Your task to perform on an android device: View the shopping cart on bestbuy. Image 0: 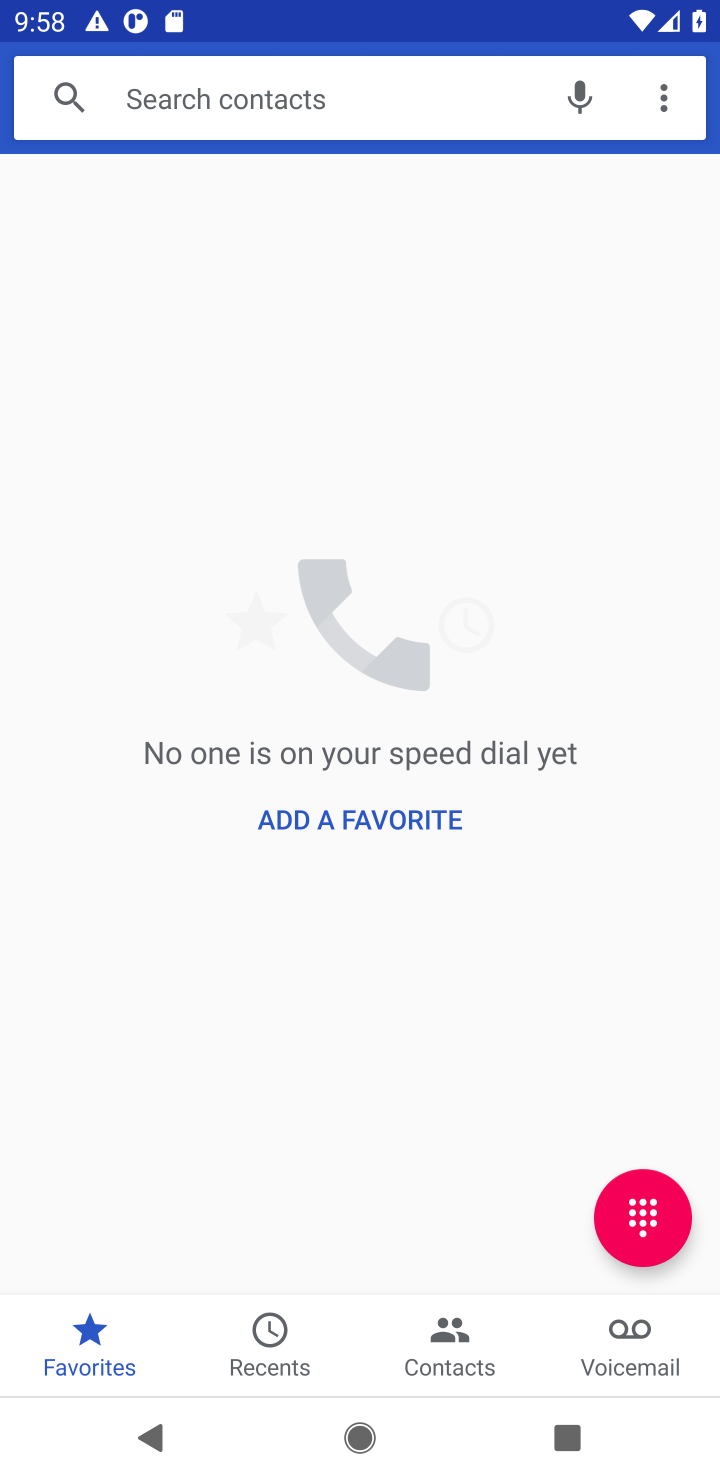
Step 0: press home button
Your task to perform on an android device: View the shopping cart on bestbuy. Image 1: 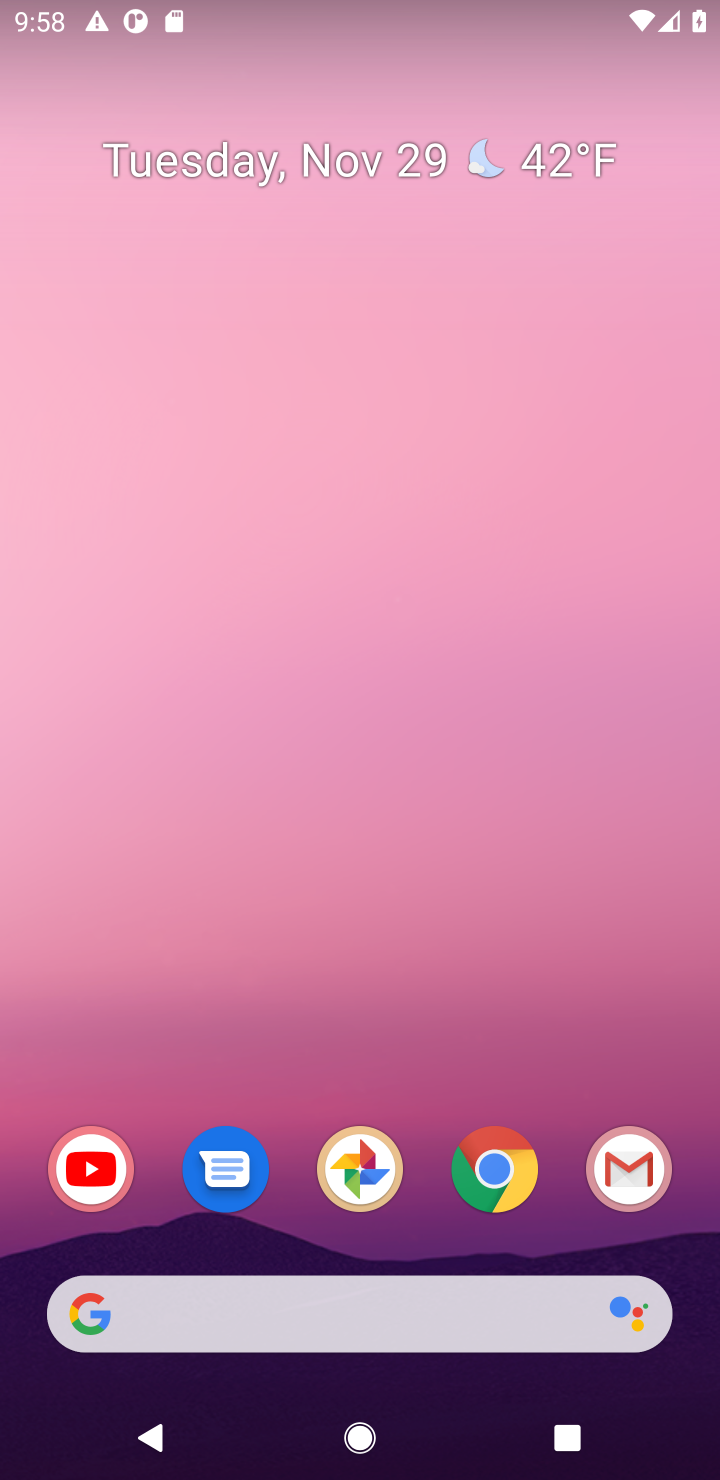
Step 1: click (299, 1295)
Your task to perform on an android device: View the shopping cart on bestbuy. Image 2: 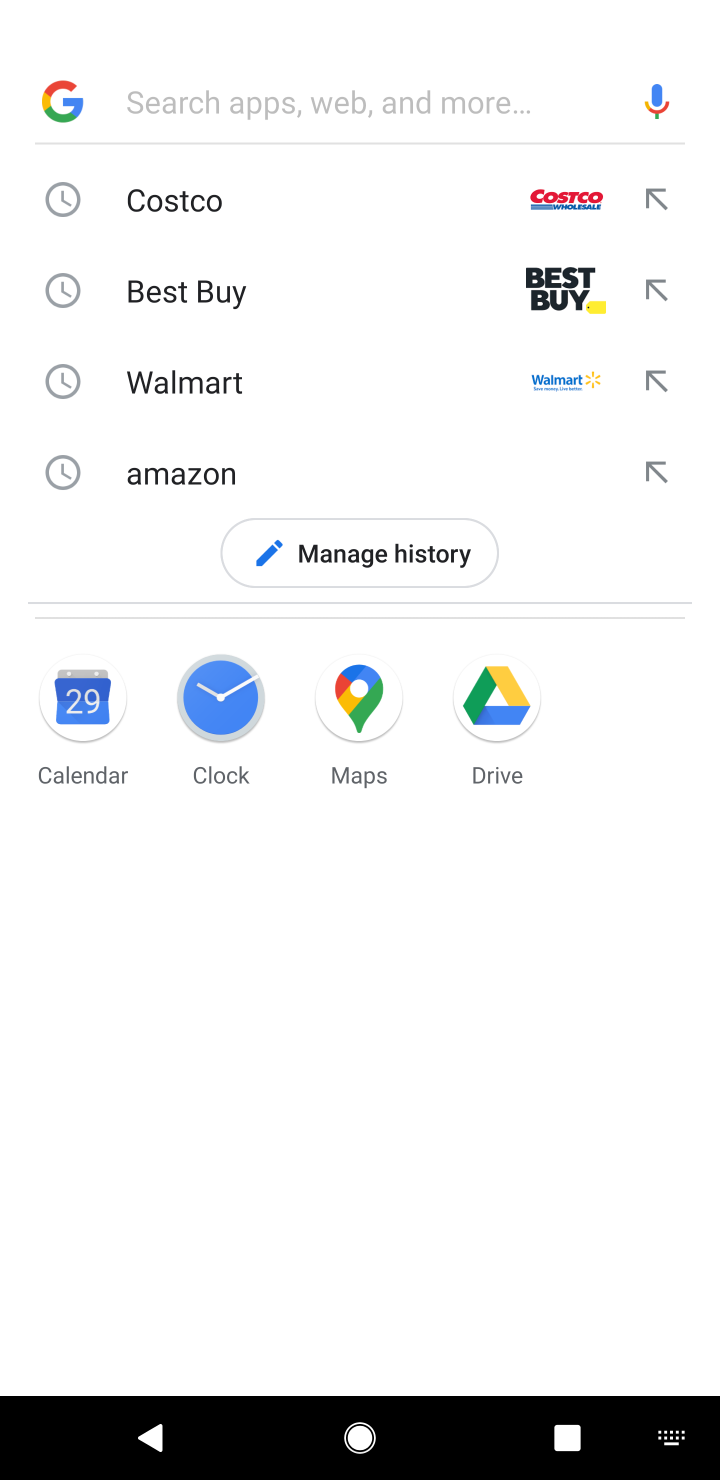
Step 2: type "bestbuy"
Your task to perform on an android device: View the shopping cart on bestbuy. Image 3: 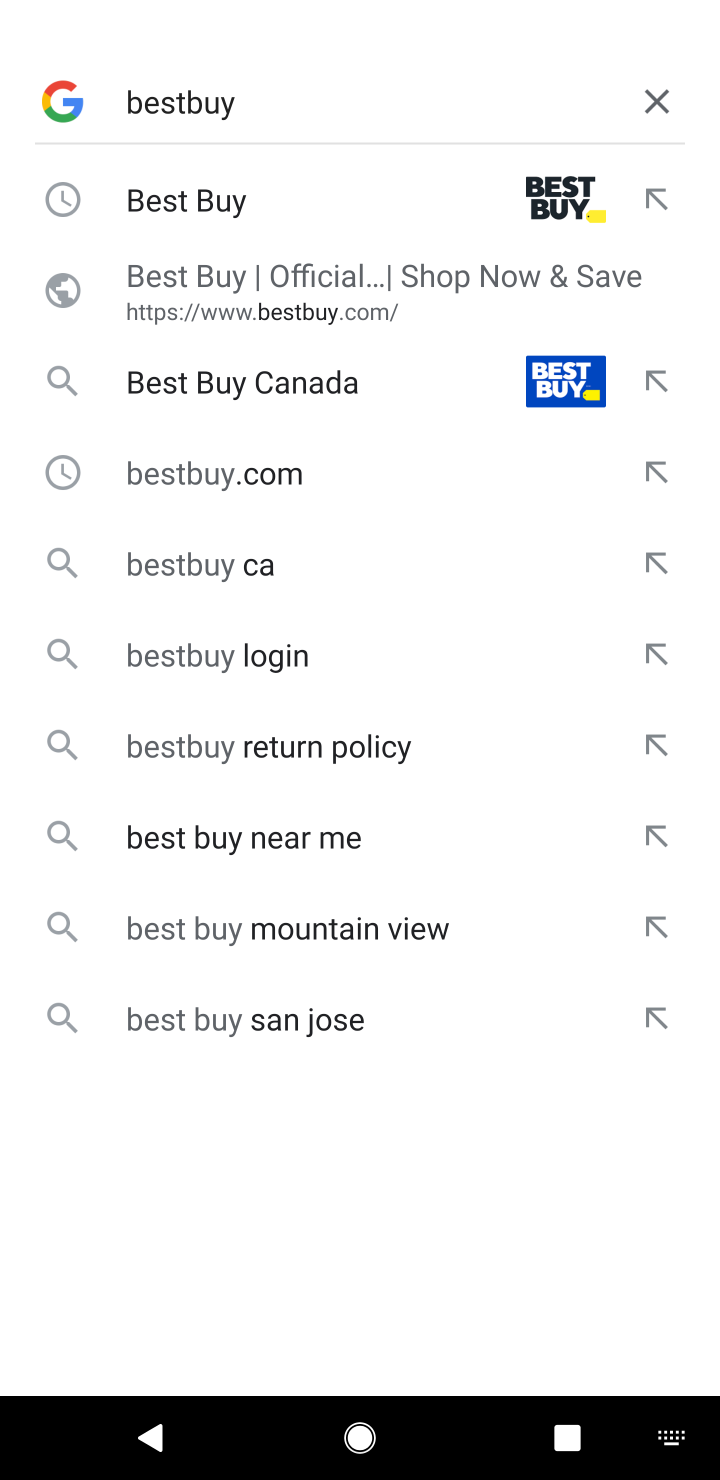
Step 3: click (216, 211)
Your task to perform on an android device: View the shopping cart on bestbuy. Image 4: 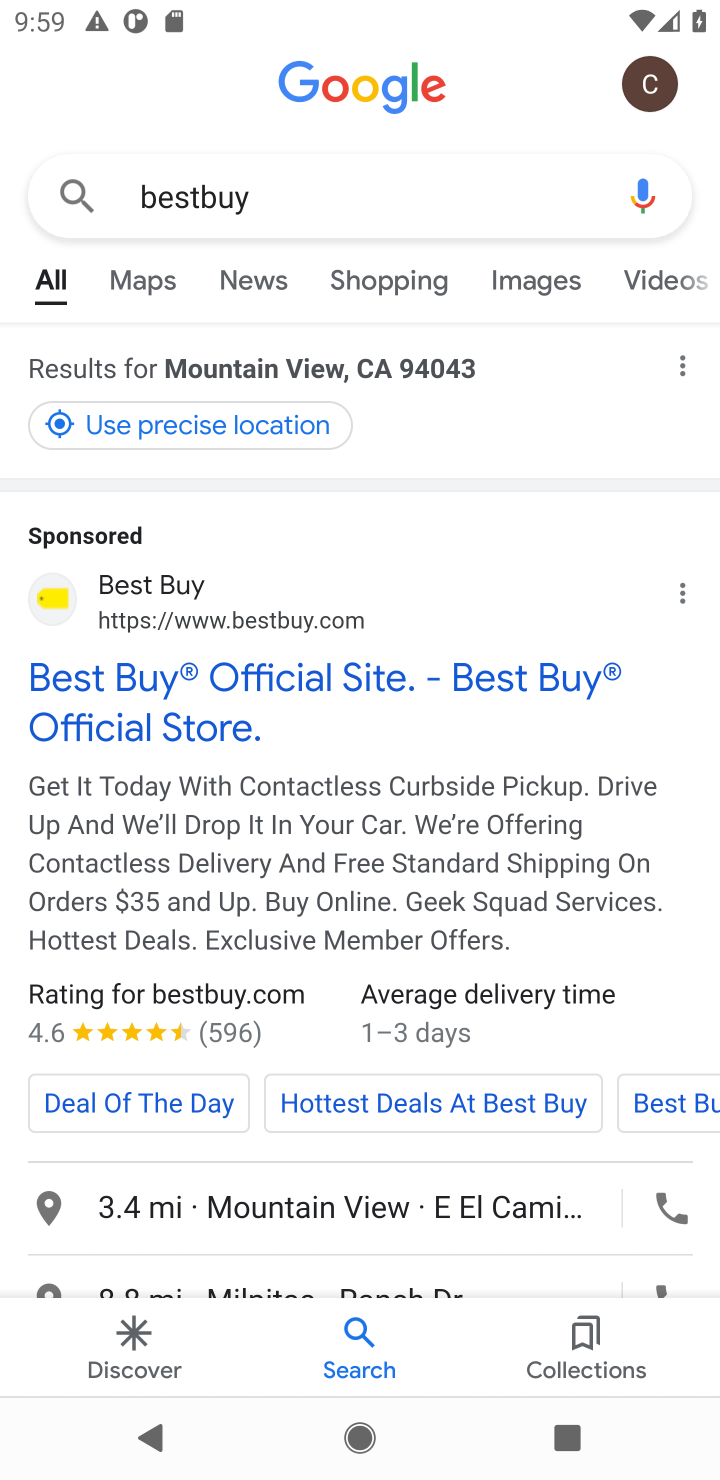
Step 4: click (103, 749)
Your task to perform on an android device: View the shopping cart on bestbuy. Image 5: 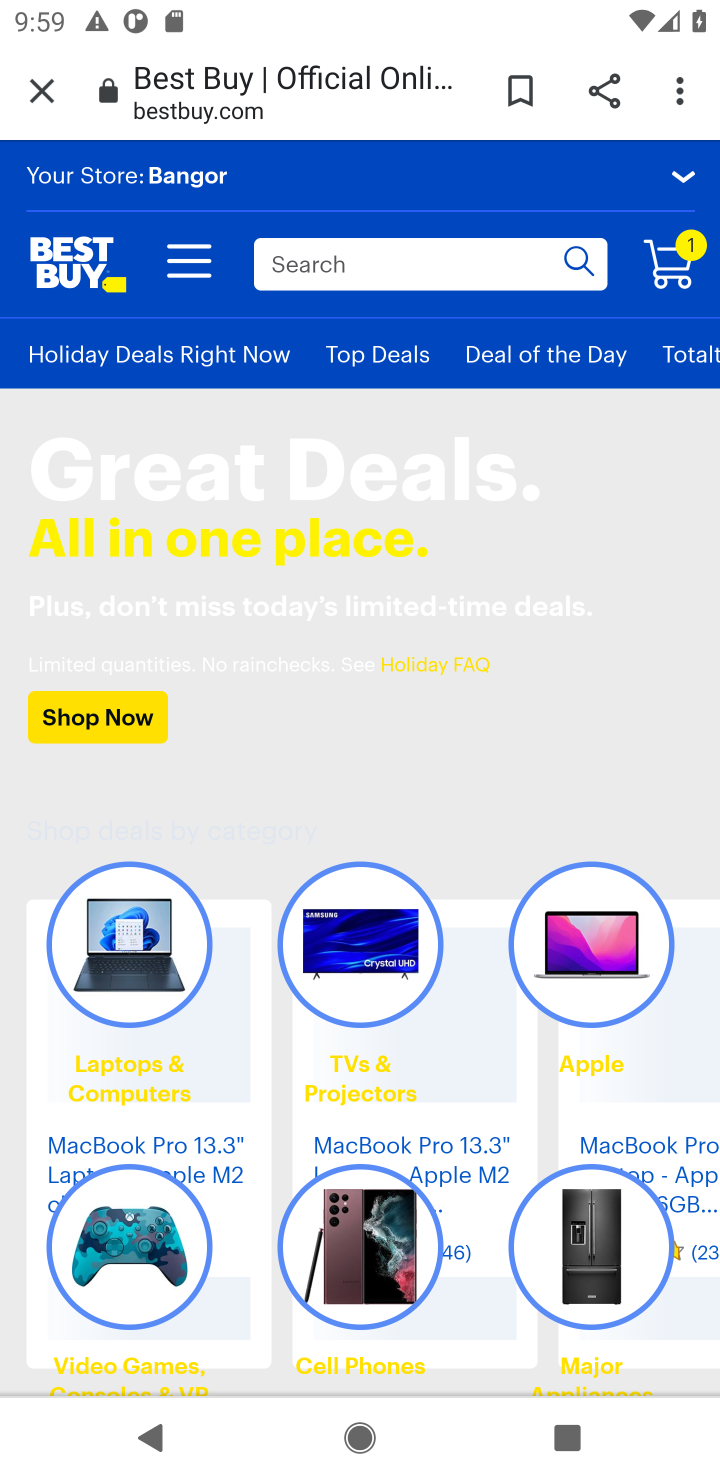
Step 5: click (380, 283)
Your task to perform on an android device: View the shopping cart on bestbuy. Image 6: 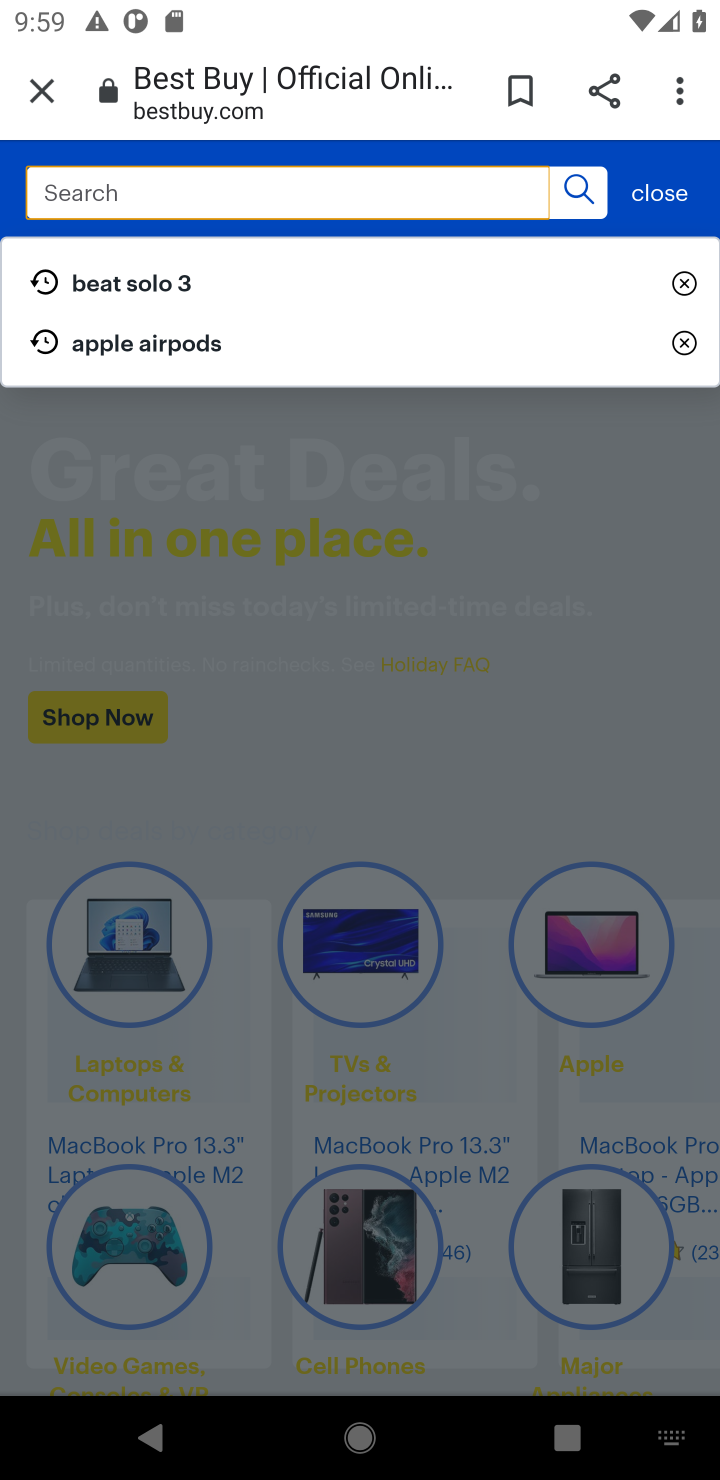
Step 6: click (528, 537)
Your task to perform on an android device: View the shopping cart on bestbuy. Image 7: 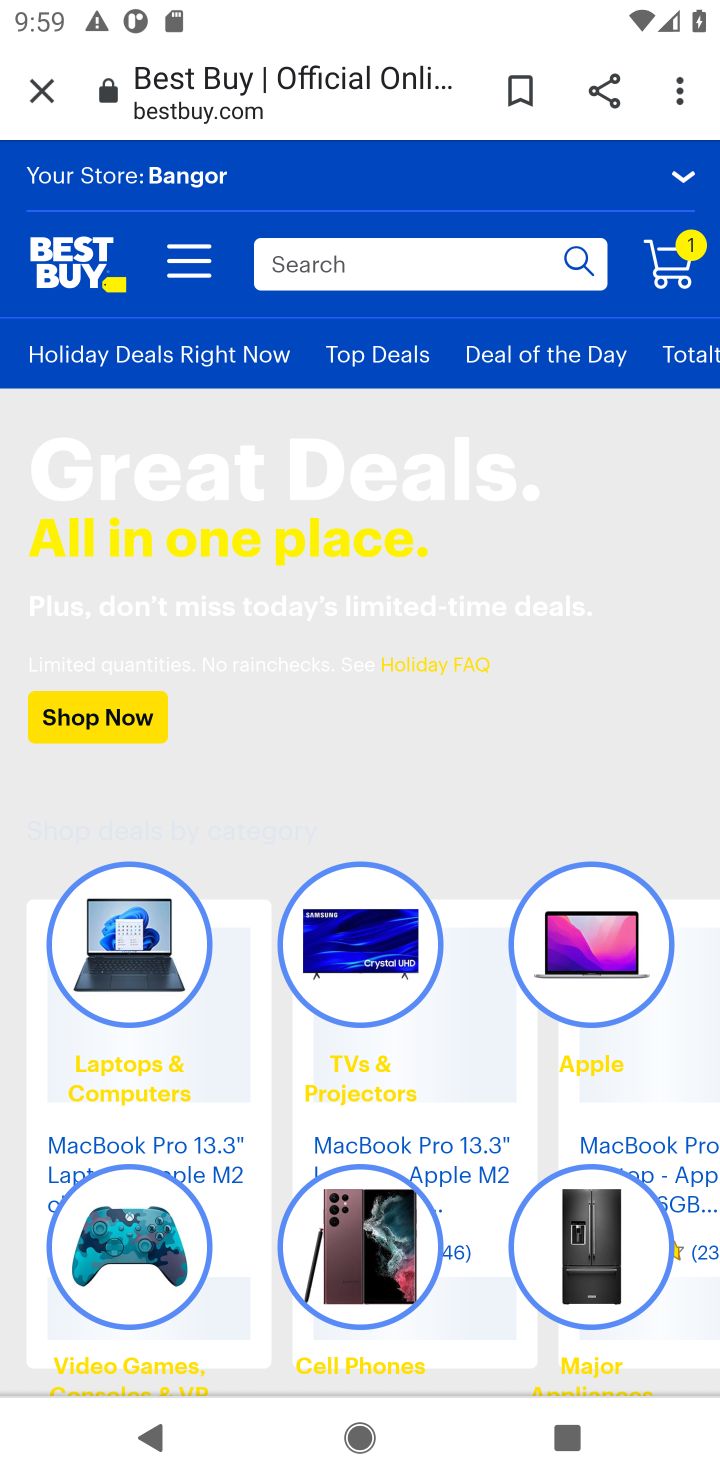
Step 7: click (690, 270)
Your task to perform on an android device: View the shopping cart on bestbuy. Image 8: 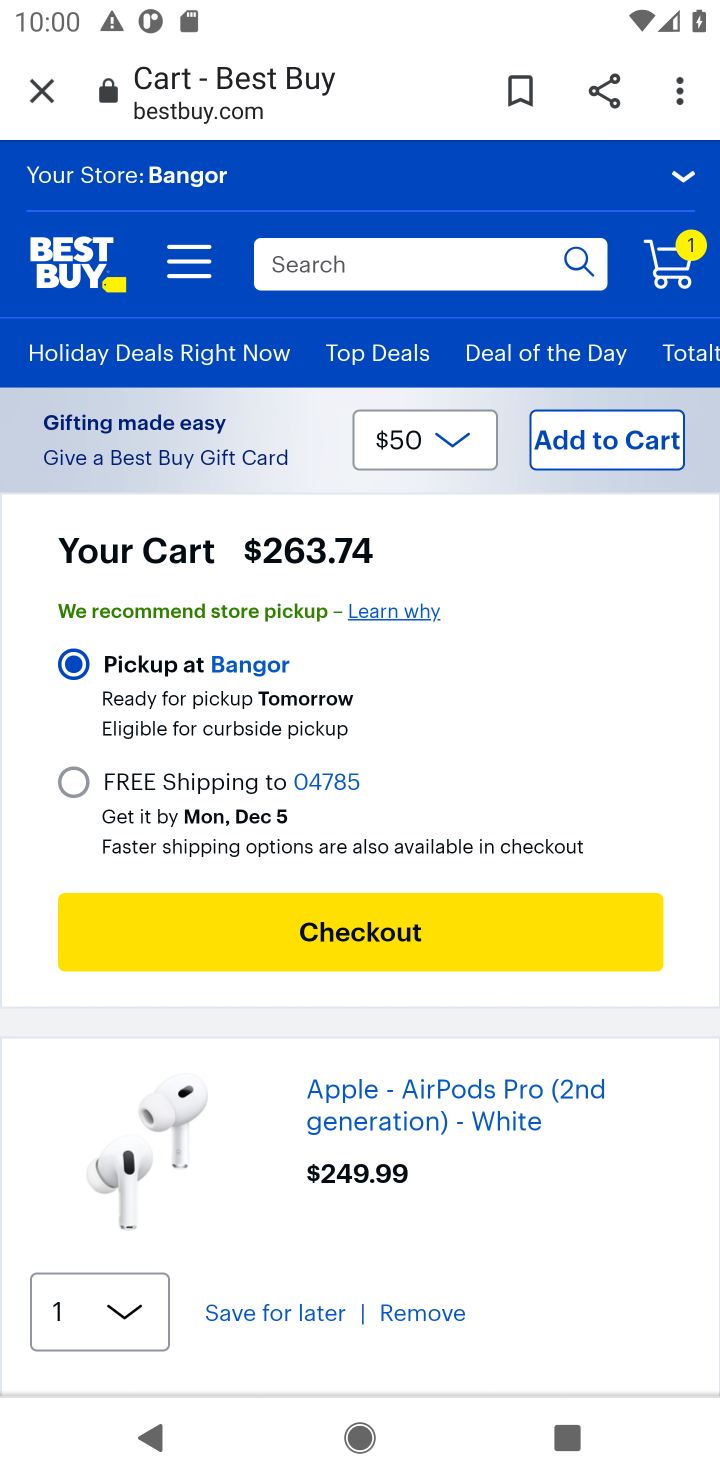
Step 8: task complete